Your task to perform on an android device: Toggle the flashlight Image 0: 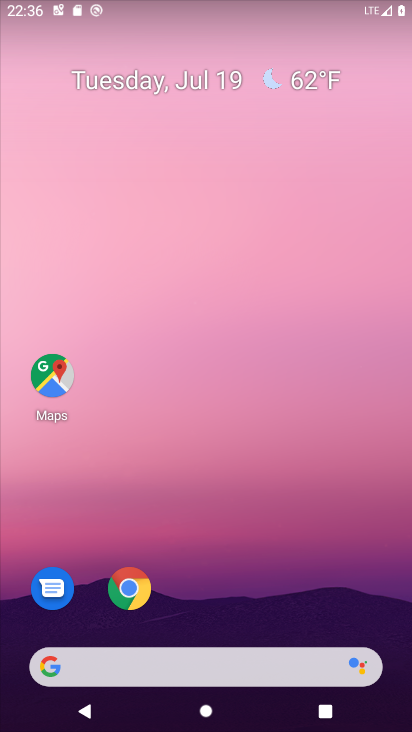
Step 0: drag from (166, 581) to (182, 226)
Your task to perform on an android device: Toggle the flashlight Image 1: 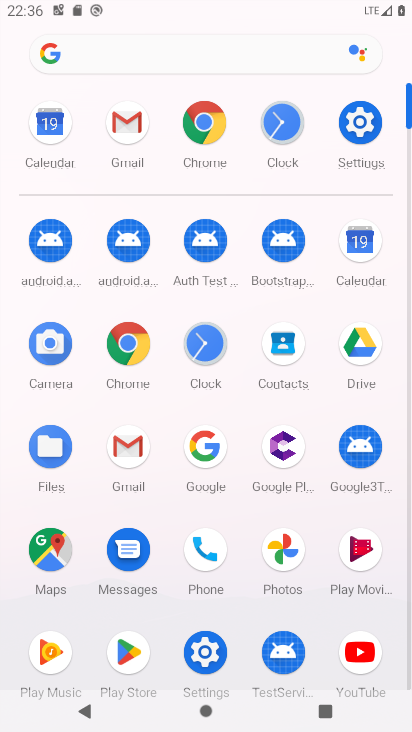
Step 1: click (351, 135)
Your task to perform on an android device: Toggle the flashlight Image 2: 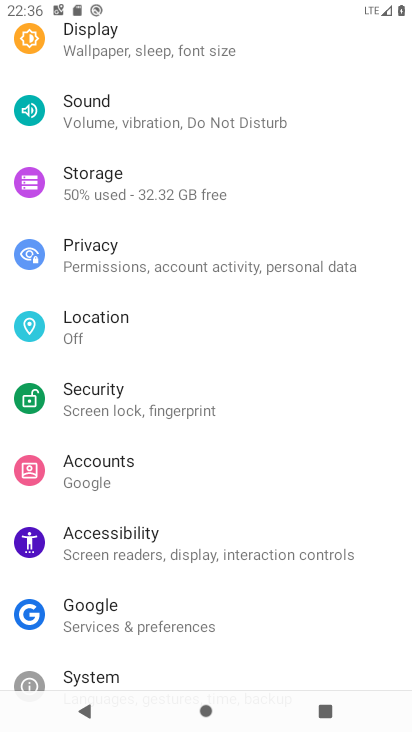
Step 2: task complete